Your task to perform on an android device: Open notification settings Image 0: 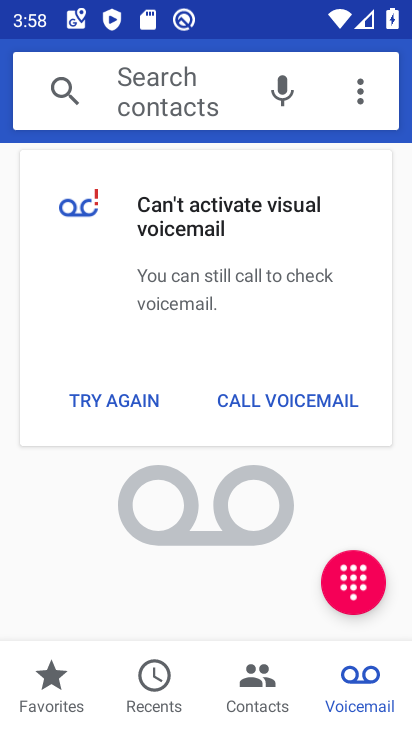
Step 0: press home button
Your task to perform on an android device: Open notification settings Image 1: 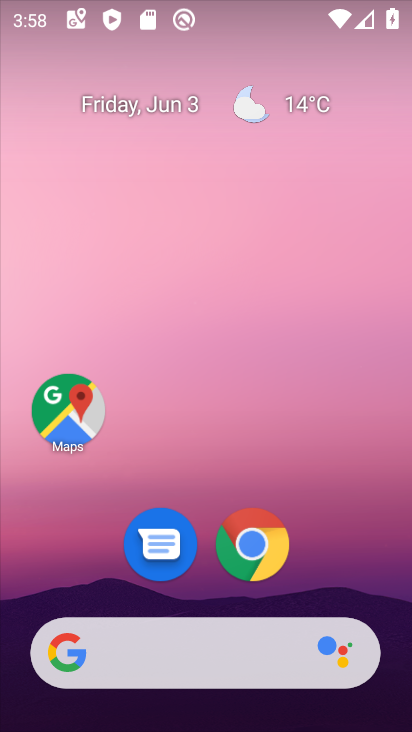
Step 1: drag from (392, 622) to (330, 150)
Your task to perform on an android device: Open notification settings Image 2: 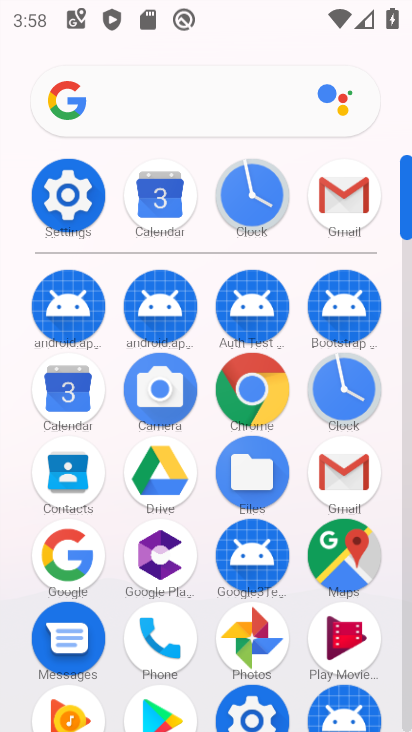
Step 2: click (344, 472)
Your task to perform on an android device: Open notification settings Image 3: 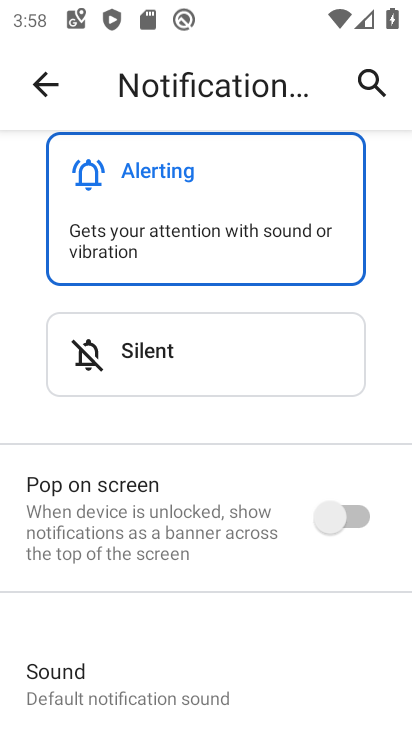
Step 3: drag from (251, 627) to (254, 183)
Your task to perform on an android device: Open notification settings Image 4: 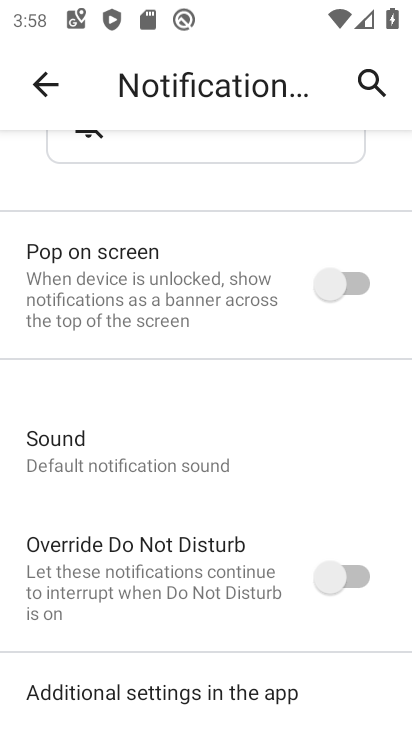
Step 4: drag from (259, 560) to (295, 196)
Your task to perform on an android device: Open notification settings Image 5: 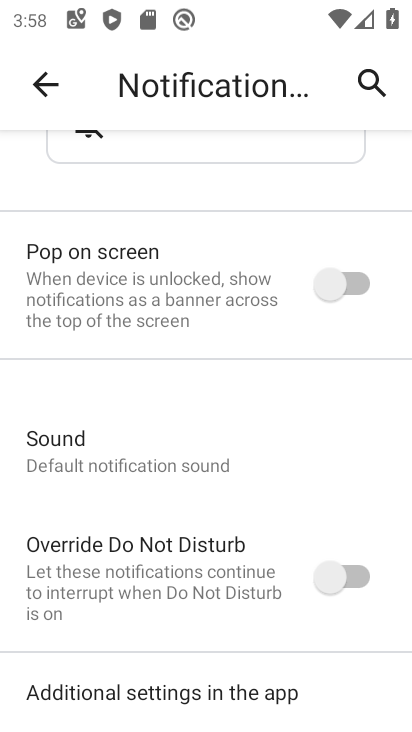
Step 5: press back button
Your task to perform on an android device: Open notification settings Image 6: 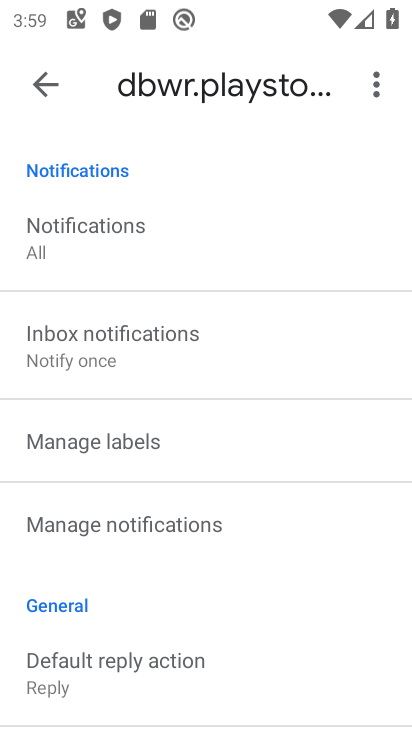
Step 6: press home button
Your task to perform on an android device: Open notification settings Image 7: 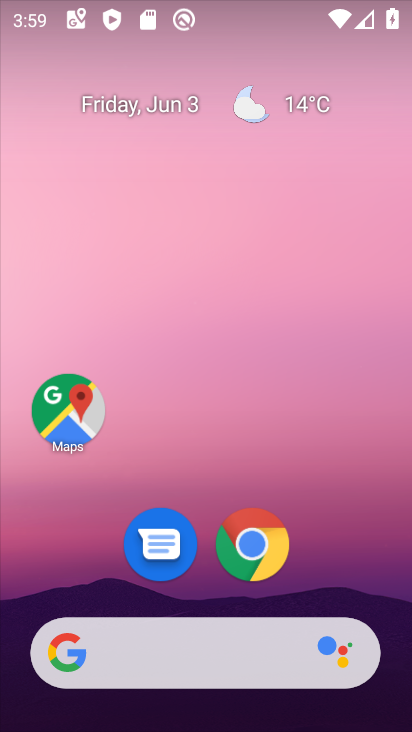
Step 7: drag from (391, 655) to (317, 66)
Your task to perform on an android device: Open notification settings Image 8: 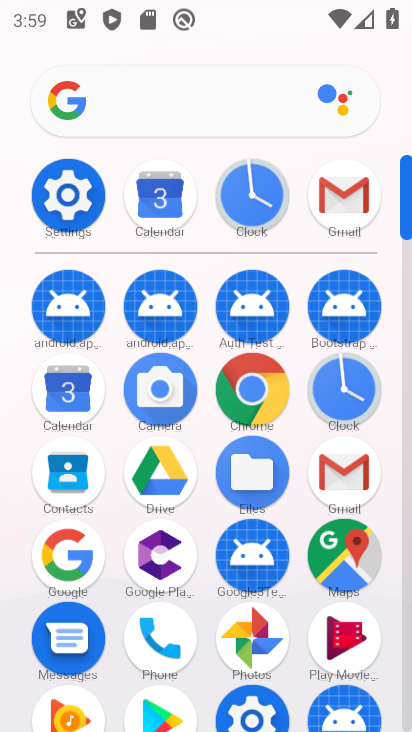
Step 8: click (408, 691)
Your task to perform on an android device: Open notification settings Image 9: 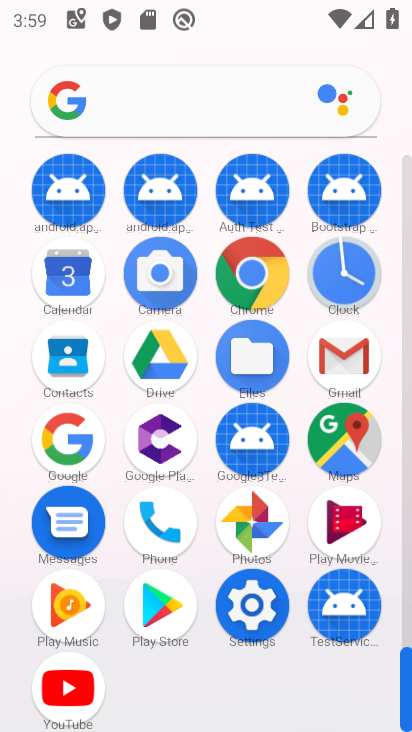
Step 9: click (251, 603)
Your task to perform on an android device: Open notification settings Image 10: 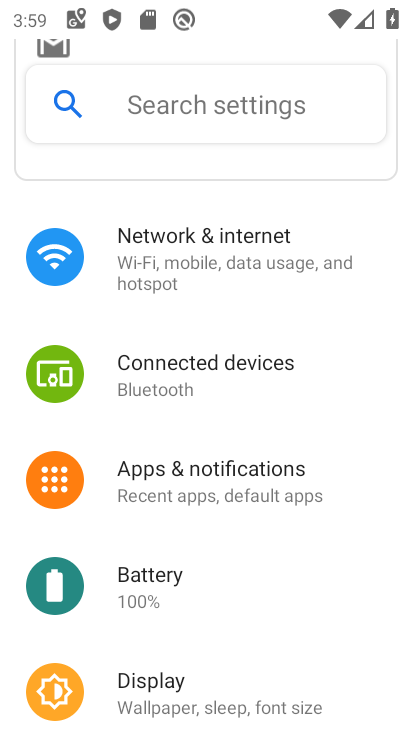
Step 10: click (211, 495)
Your task to perform on an android device: Open notification settings Image 11: 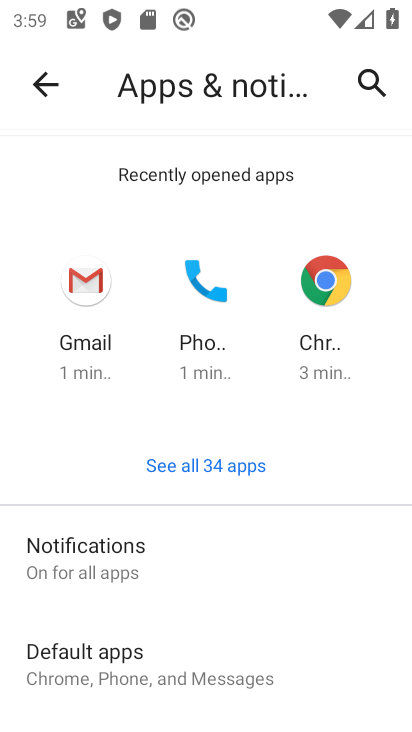
Step 11: click (116, 556)
Your task to perform on an android device: Open notification settings Image 12: 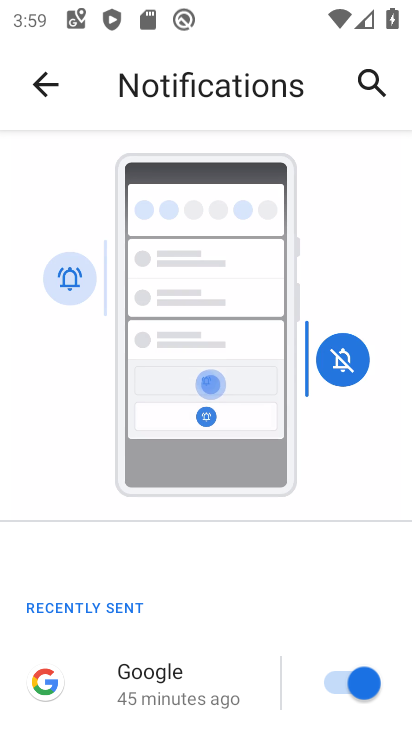
Step 12: drag from (268, 633) to (228, 216)
Your task to perform on an android device: Open notification settings Image 13: 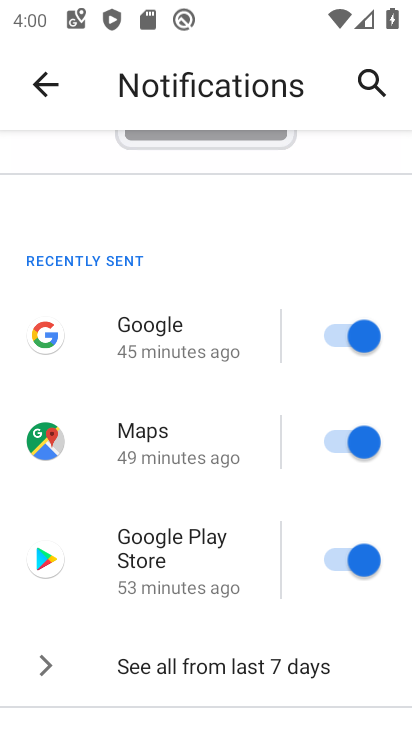
Step 13: drag from (291, 614) to (242, 148)
Your task to perform on an android device: Open notification settings Image 14: 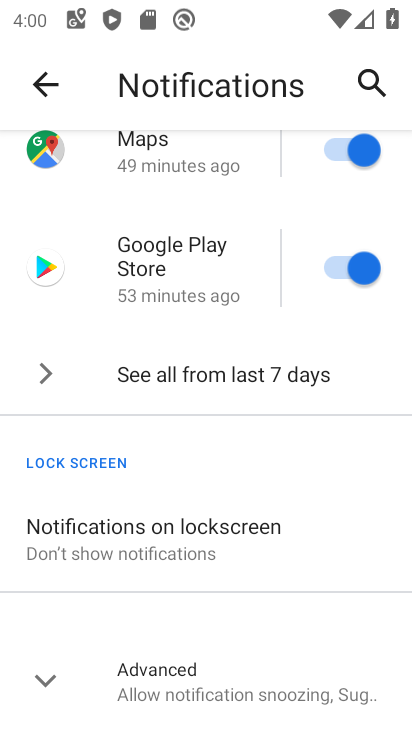
Step 14: click (49, 679)
Your task to perform on an android device: Open notification settings Image 15: 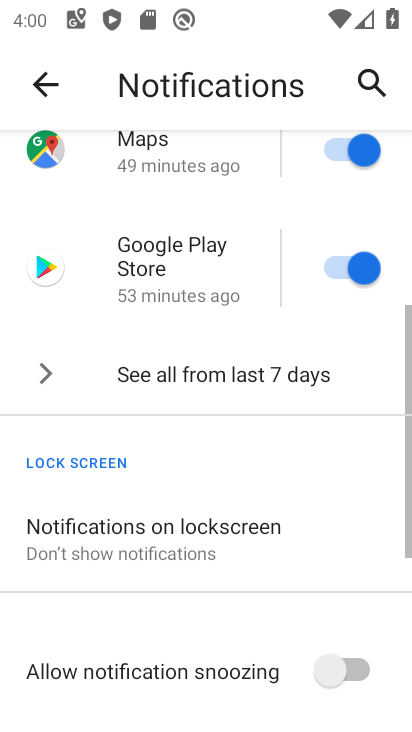
Step 15: task complete